Your task to perform on an android device: Turn on the flashlight Image 0: 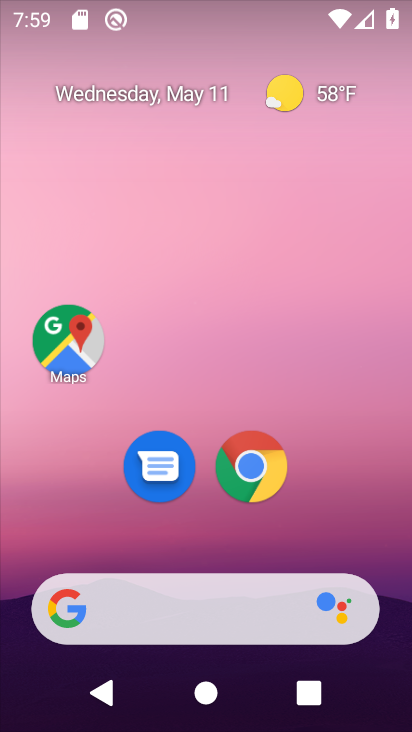
Step 0: drag from (199, 526) to (302, 5)
Your task to perform on an android device: Turn on the flashlight Image 1: 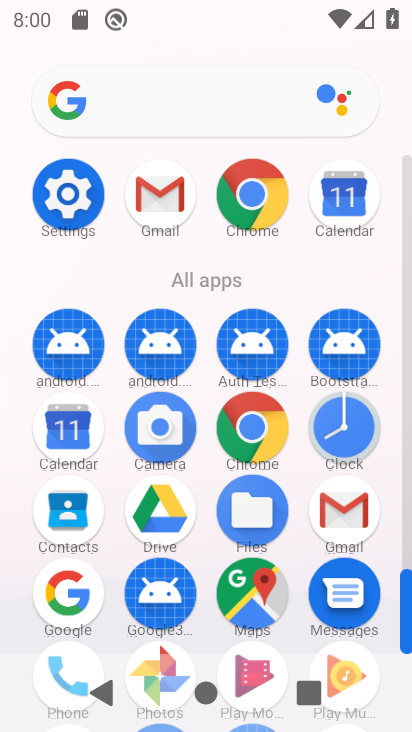
Step 1: click (78, 159)
Your task to perform on an android device: Turn on the flashlight Image 2: 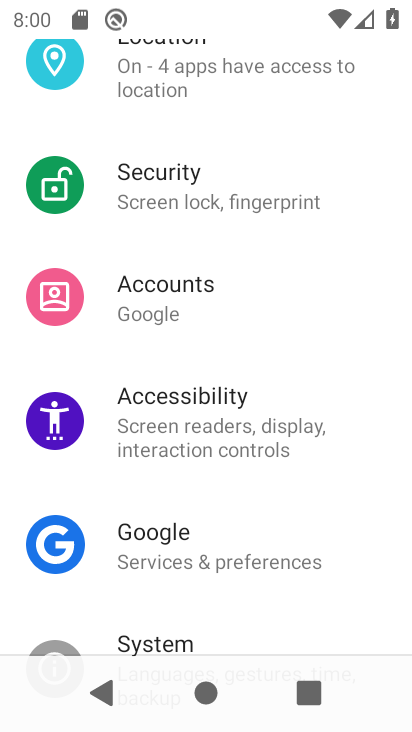
Step 2: task complete